Your task to perform on an android device: turn off airplane mode Image 0: 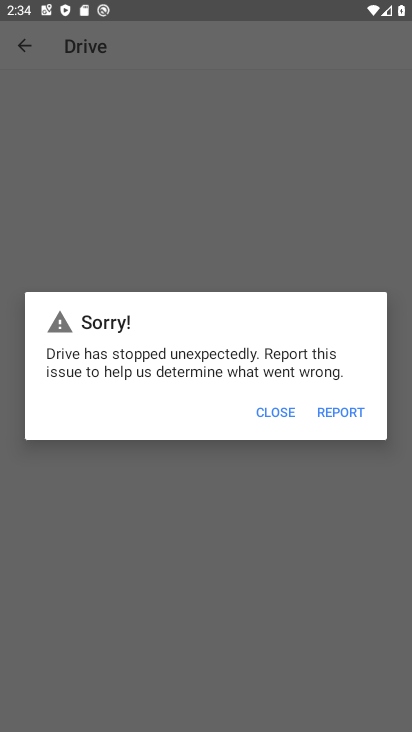
Step 0: press home button
Your task to perform on an android device: turn off airplane mode Image 1: 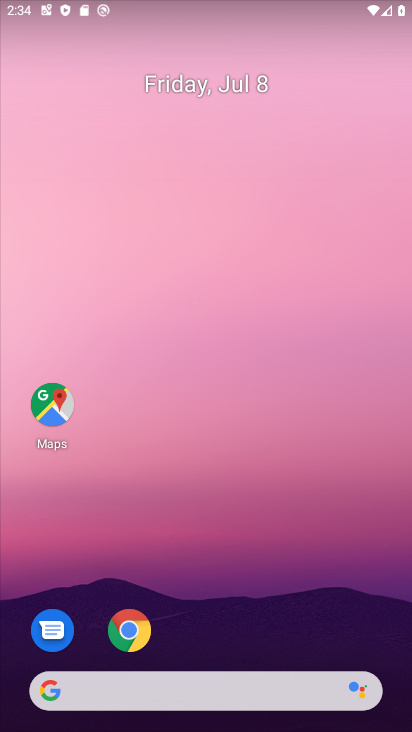
Step 1: drag from (303, 587) to (295, 172)
Your task to perform on an android device: turn off airplane mode Image 2: 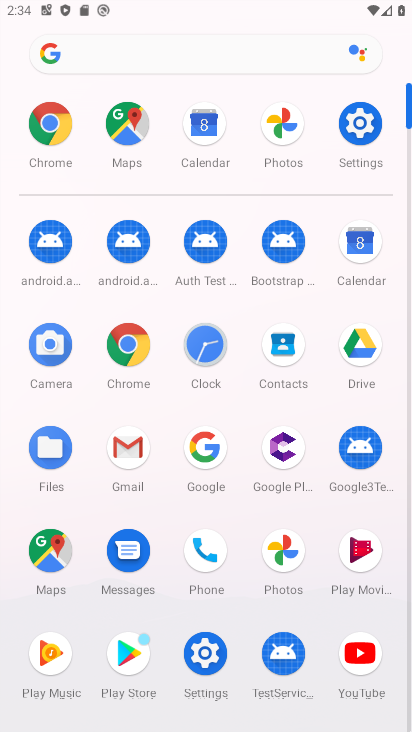
Step 2: click (354, 111)
Your task to perform on an android device: turn off airplane mode Image 3: 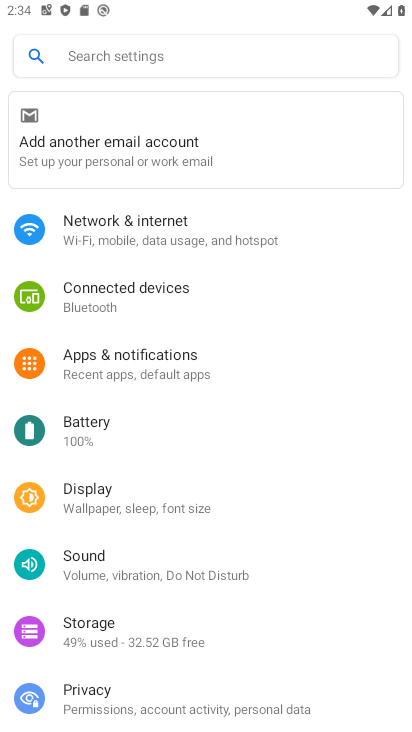
Step 3: click (97, 241)
Your task to perform on an android device: turn off airplane mode Image 4: 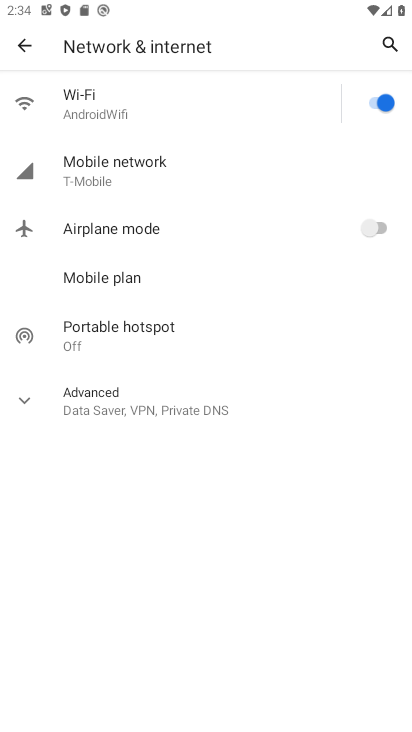
Step 4: click (261, 235)
Your task to perform on an android device: turn off airplane mode Image 5: 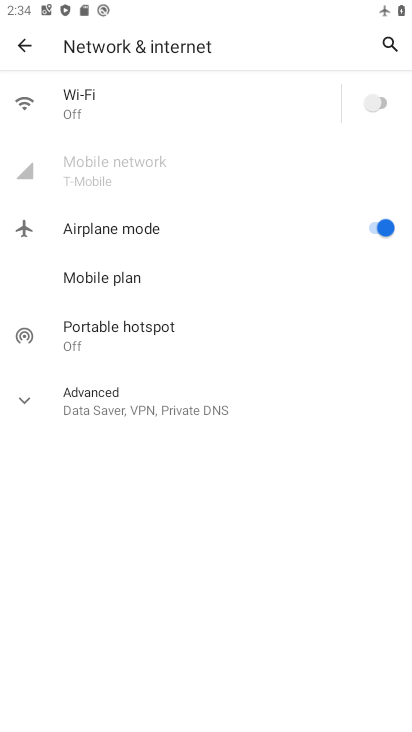
Step 5: click (261, 235)
Your task to perform on an android device: turn off airplane mode Image 6: 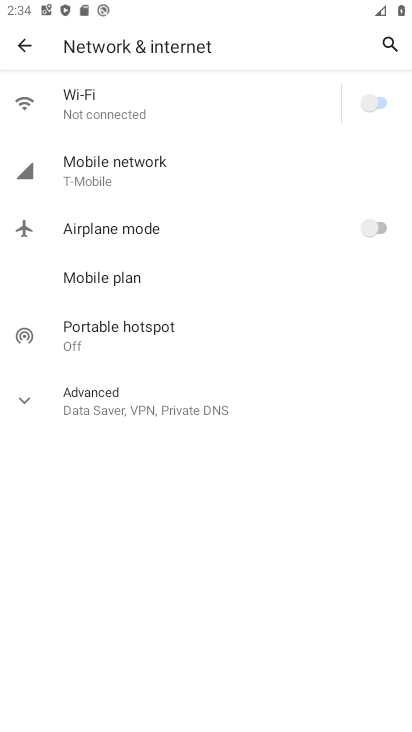
Step 6: task complete